Your task to perform on an android device: empty trash in the gmail app Image 0: 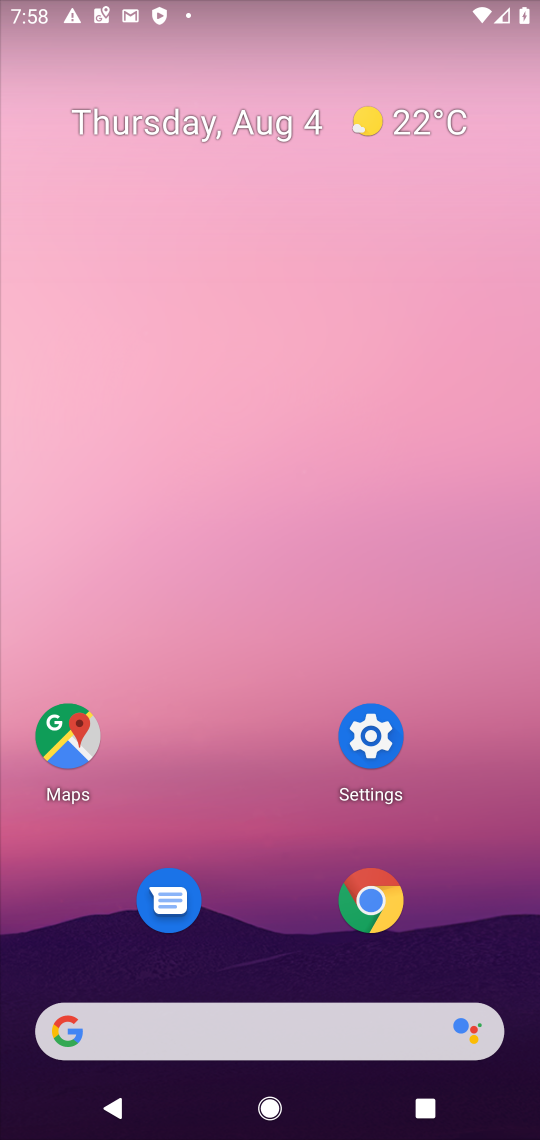
Step 0: drag from (268, 1033) to (435, 172)
Your task to perform on an android device: empty trash in the gmail app Image 1: 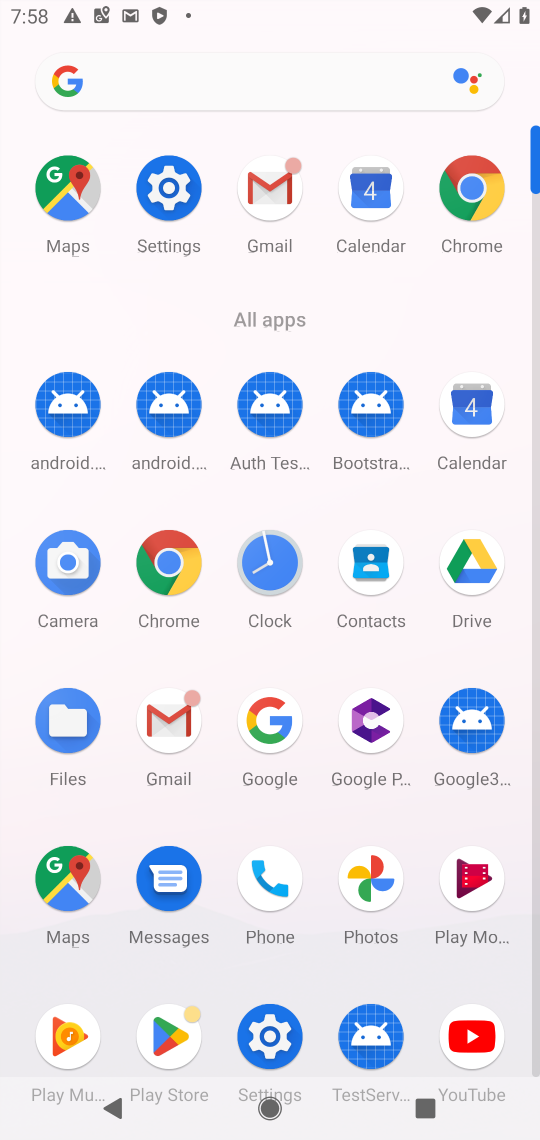
Step 1: click (259, 190)
Your task to perform on an android device: empty trash in the gmail app Image 2: 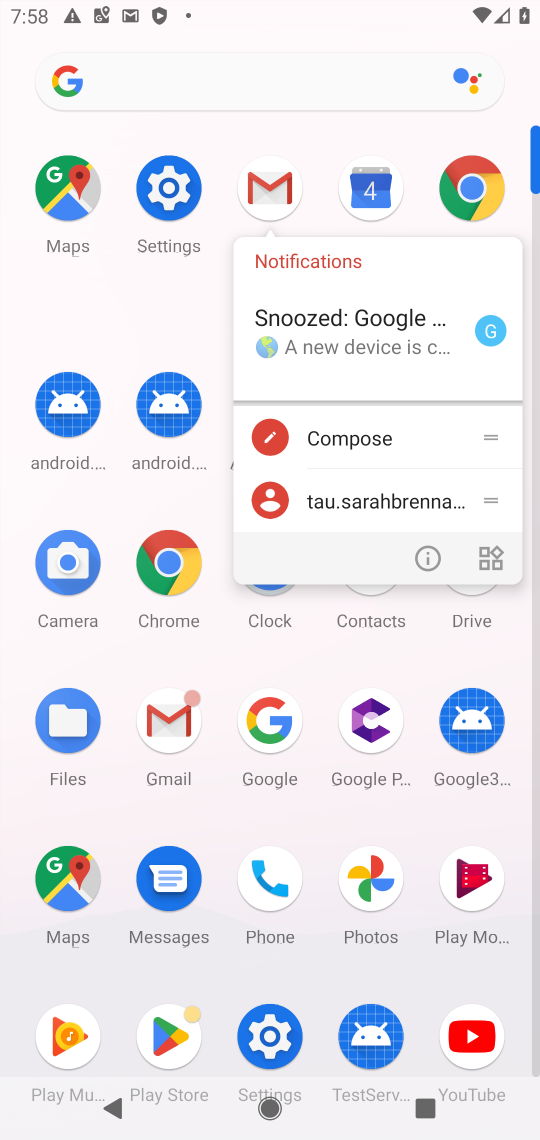
Step 2: click (259, 190)
Your task to perform on an android device: empty trash in the gmail app Image 3: 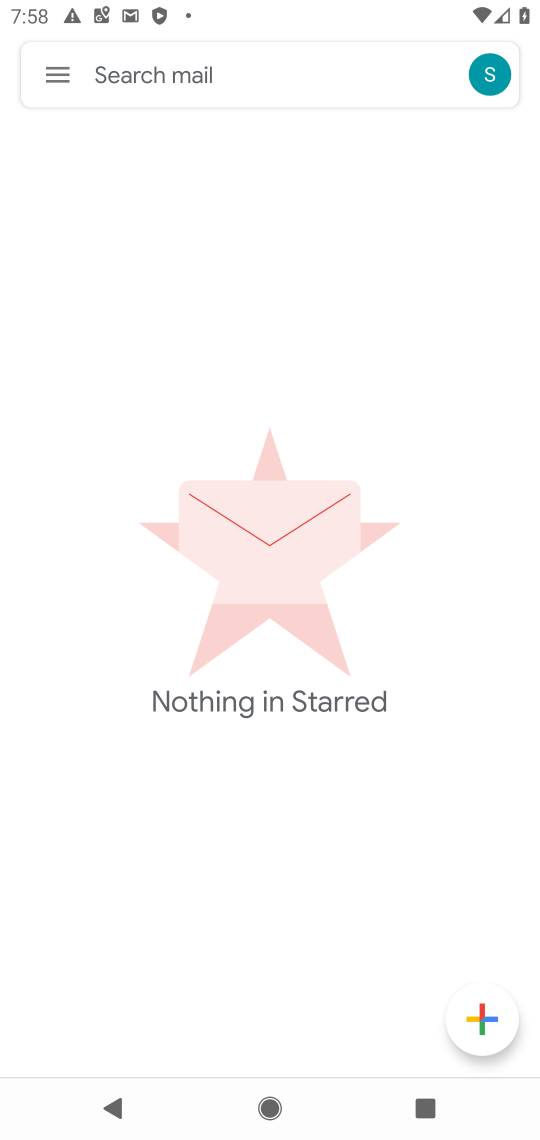
Step 3: click (53, 83)
Your task to perform on an android device: empty trash in the gmail app Image 4: 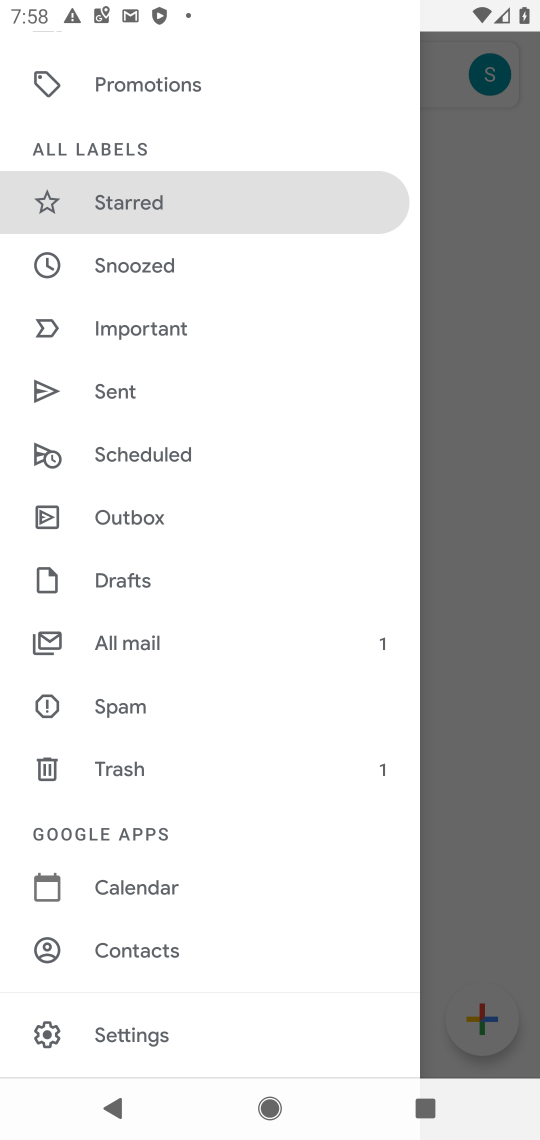
Step 4: click (138, 775)
Your task to perform on an android device: empty trash in the gmail app Image 5: 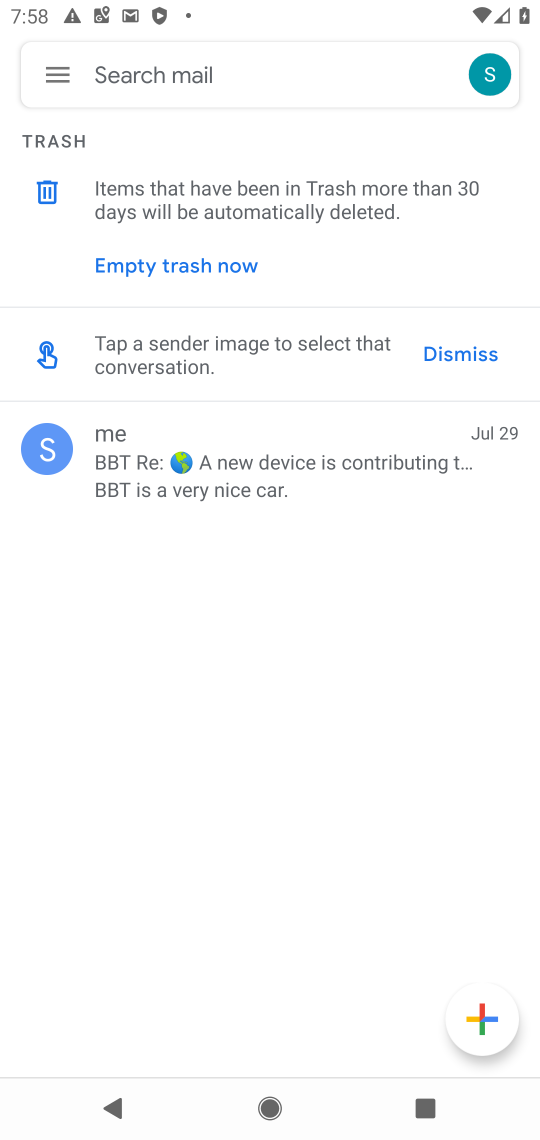
Step 5: click (141, 264)
Your task to perform on an android device: empty trash in the gmail app Image 6: 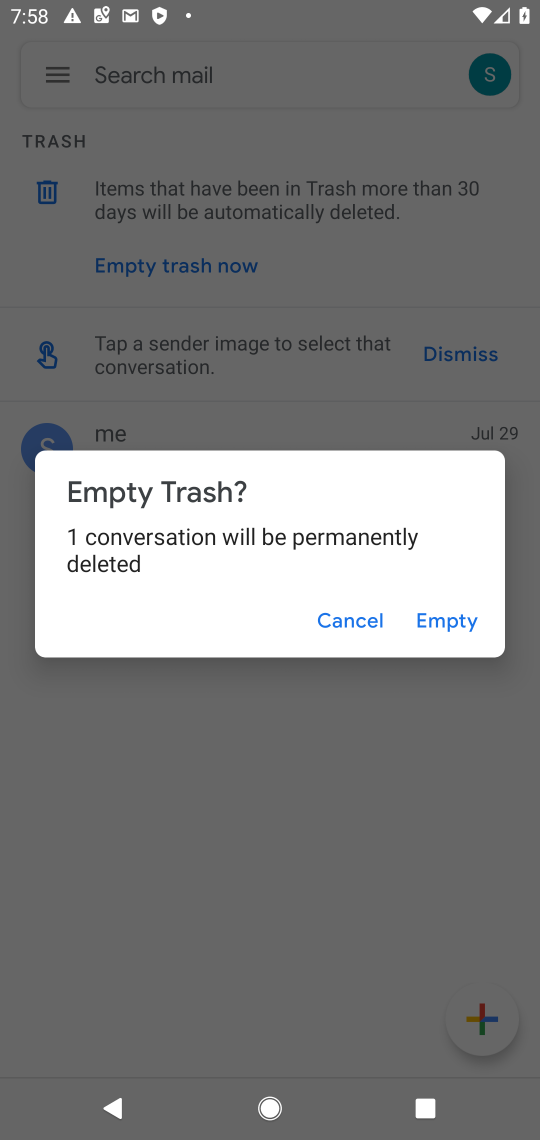
Step 6: click (429, 617)
Your task to perform on an android device: empty trash in the gmail app Image 7: 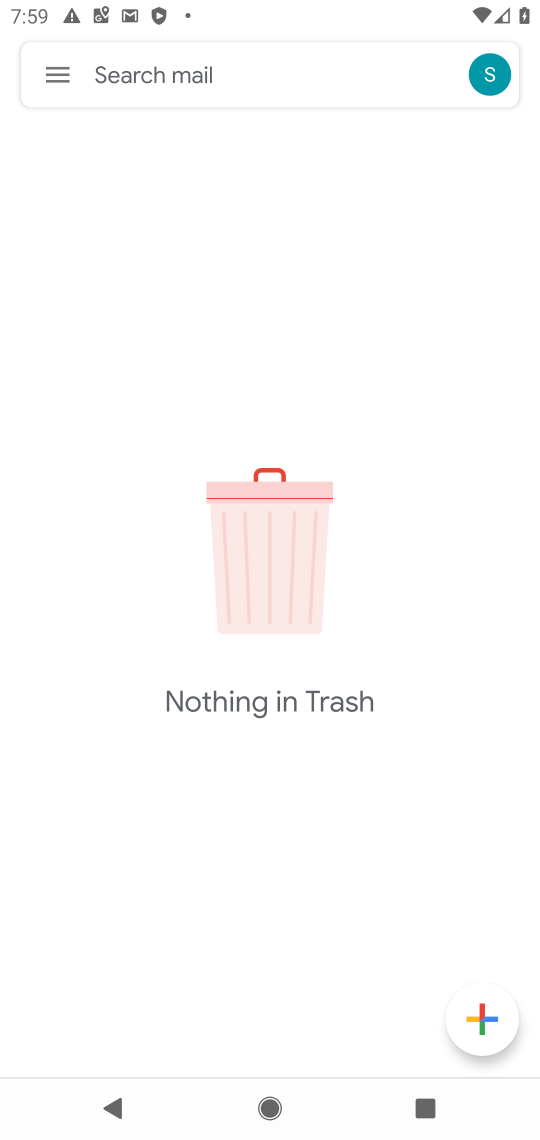
Step 7: task complete